Your task to perform on an android device: turn on priority inbox in the gmail app Image 0: 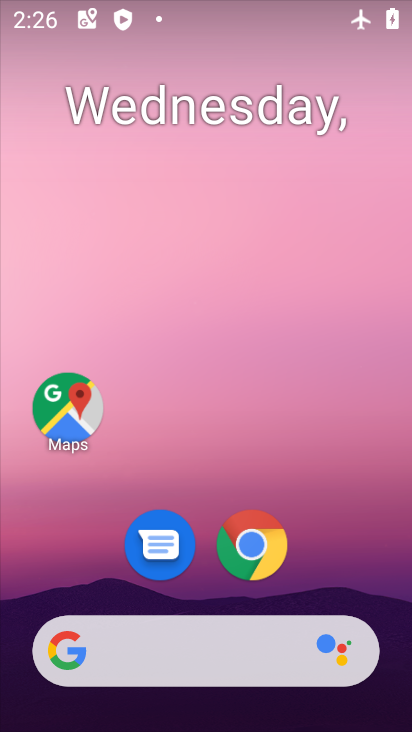
Step 0: drag from (315, 528) to (306, 141)
Your task to perform on an android device: turn on priority inbox in the gmail app Image 1: 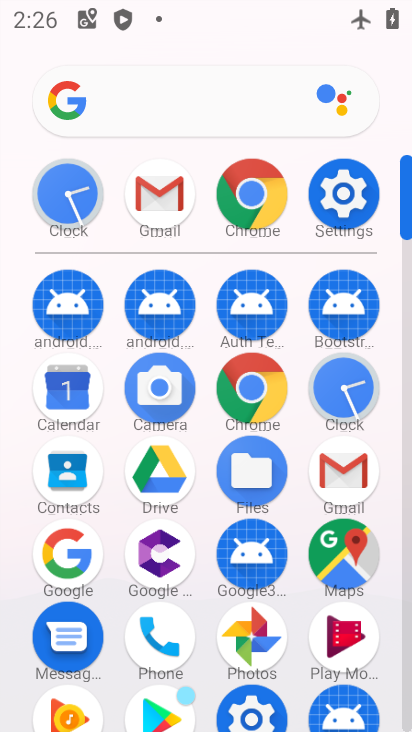
Step 1: click (170, 179)
Your task to perform on an android device: turn on priority inbox in the gmail app Image 2: 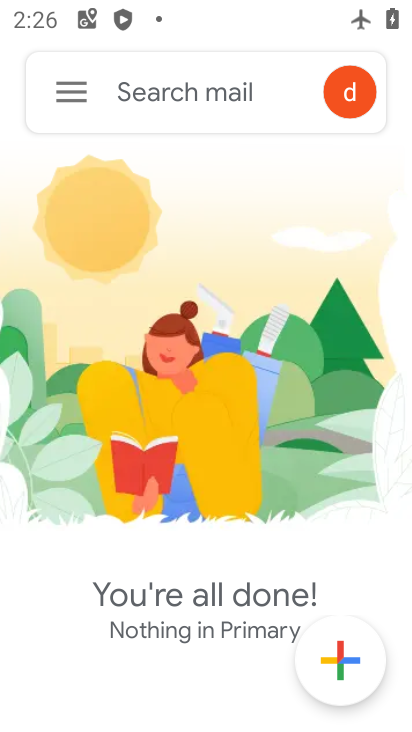
Step 2: click (74, 82)
Your task to perform on an android device: turn on priority inbox in the gmail app Image 3: 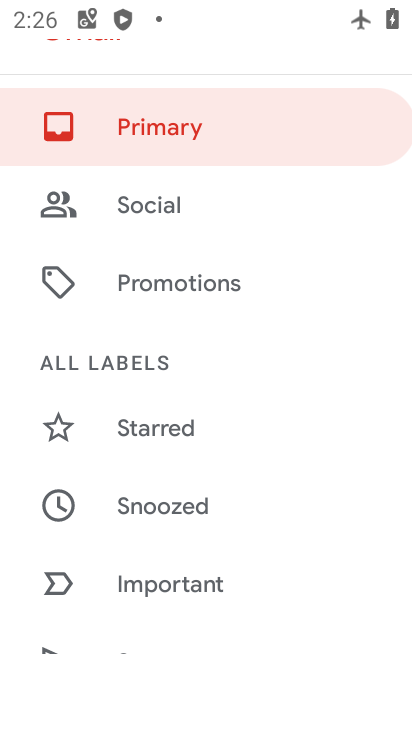
Step 3: drag from (177, 448) to (214, 123)
Your task to perform on an android device: turn on priority inbox in the gmail app Image 4: 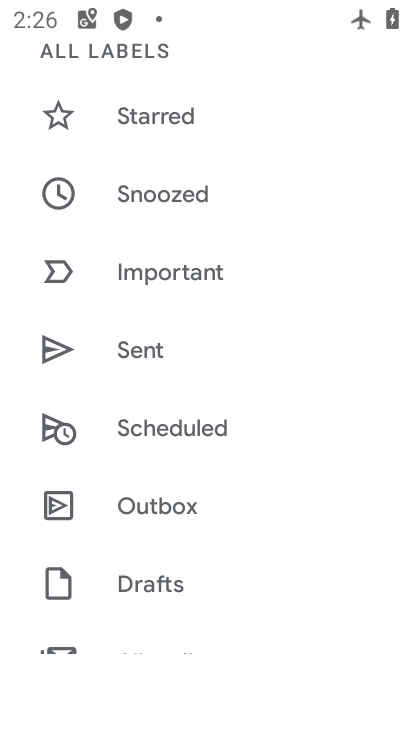
Step 4: drag from (173, 516) to (234, 169)
Your task to perform on an android device: turn on priority inbox in the gmail app Image 5: 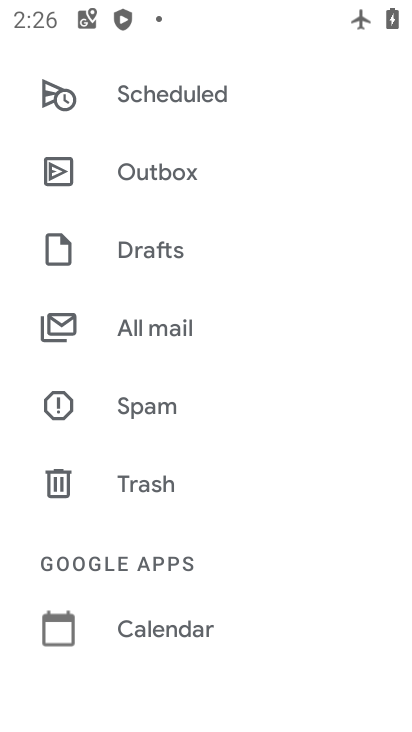
Step 5: drag from (205, 563) to (211, 300)
Your task to perform on an android device: turn on priority inbox in the gmail app Image 6: 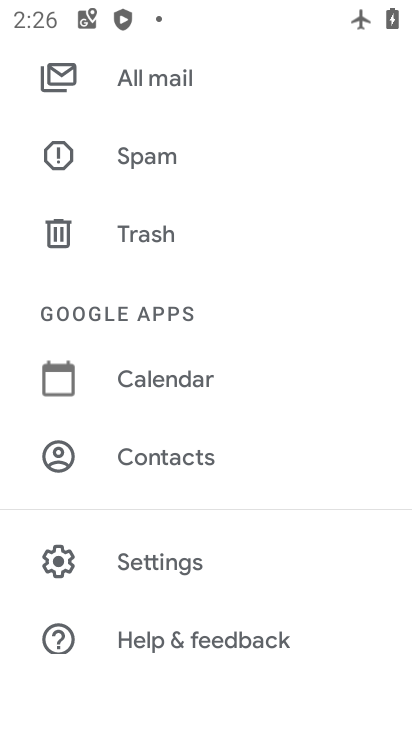
Step 6: click (141, 565)
Your task to perform on an android device: turn on priority inbox in the gmail app Image 7: 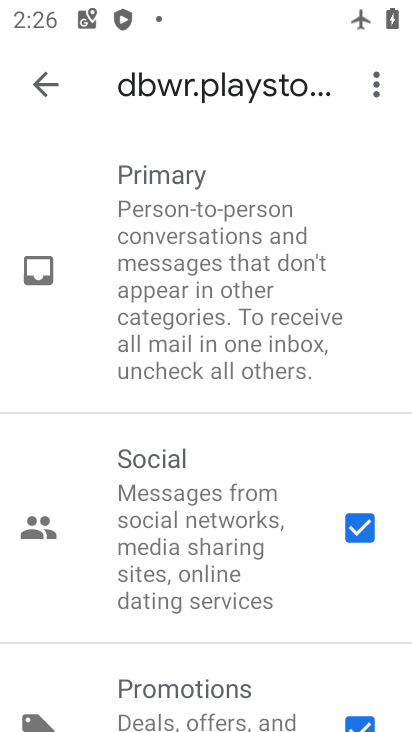
Step 7: click (46, 75)
Your task to perform on an android device: turn on priority inbox in the gmail app Image 8: 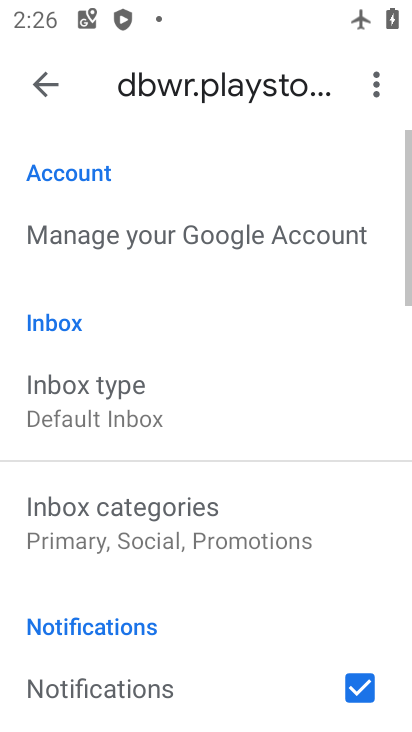
Step 8: click (135, 384)
Your task to perform on an android device: turn on priority inbox in the gmail app Image 9: 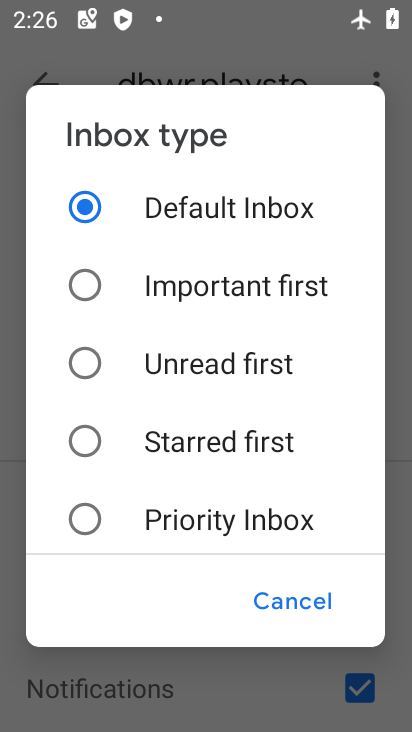
Step 9: task complete